Your task to perform on an android device: open a bookmark in the chrome app Image 0: 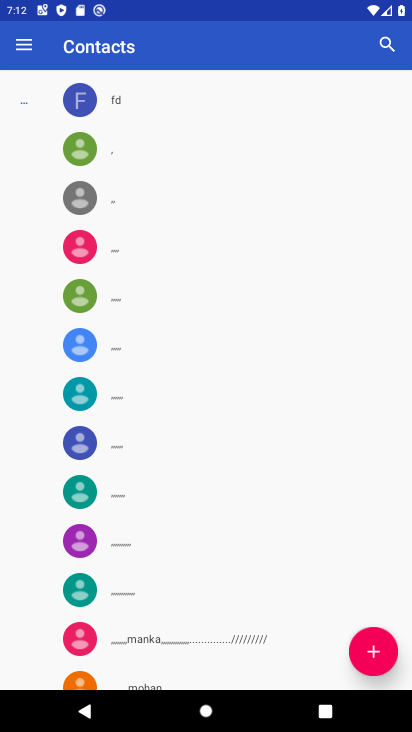
Step 0: press home button
Your task to perform on an android device: open a bookmark in the chrome app Image 1: 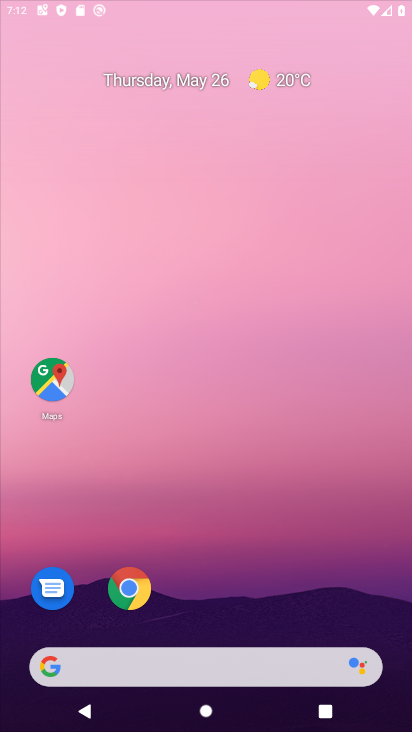
Step 1: drag from (385, 602) to (280, 59)
Your task to perform on an android device: open a bookmark in the chrome app Image 2: 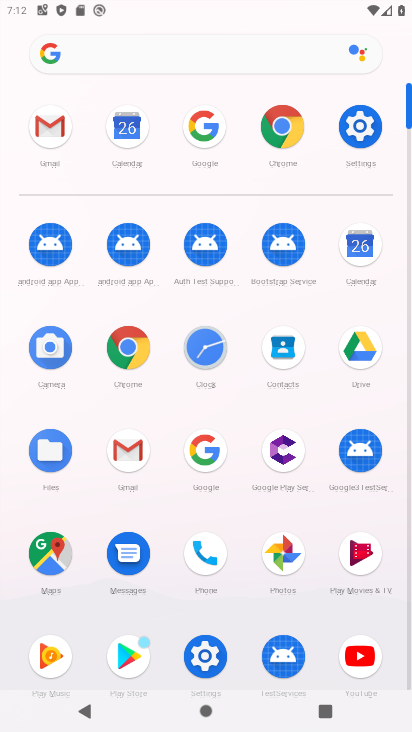
Step 2: click (292, 137)
Your task to perform on an android device: open a bookmark in the chrome app Image 3: 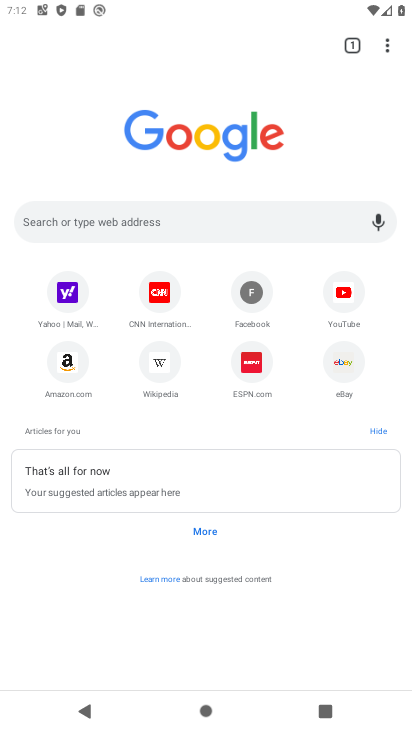
Step 3: click (386, 49)
Your task to perform on an android device: open a bookmark in the chrome app Image 4: 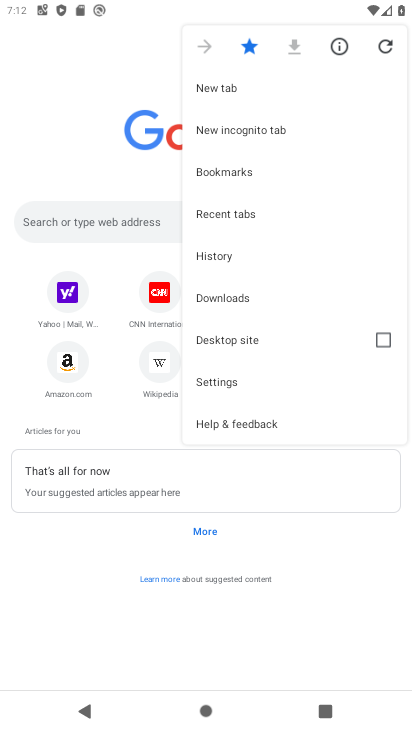
Step 4: click (191, 167)
Your task to perform on an android device: open a bookmark in the chrome app Image 5: 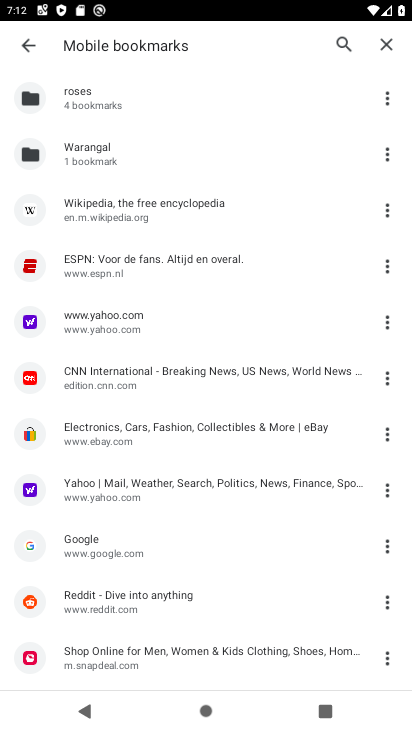
Step 5: task complete